Your task to perform on an android device: change alarm snooze length Image 0: 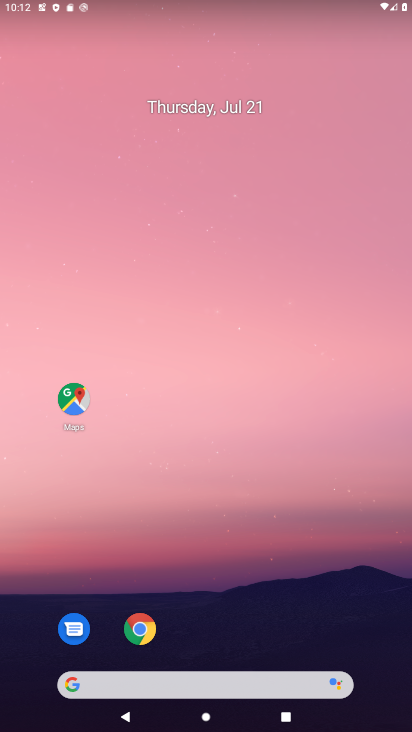
Step 0: drag from (259, 563) to (383, 20)
Your task to perform on an android device: change alarm snooze length Image 1: 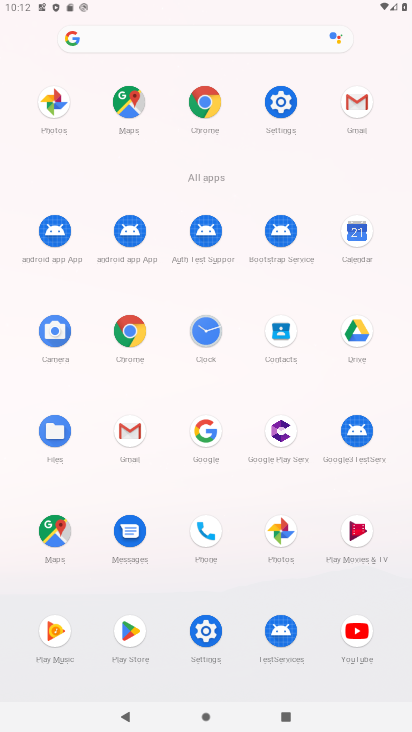
Step 1: click (206, 319)
Your task to perform on an android device: change alarm snooze length Image 2: 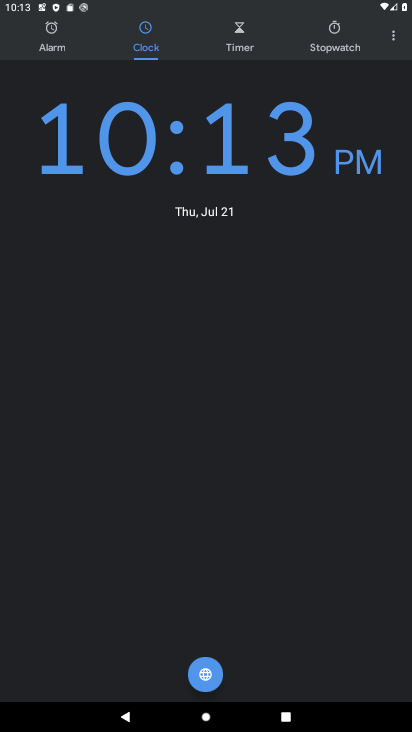
Step 2: click (395, 33)
Your task to perform on an android device: change alarm snooze length Image 3: 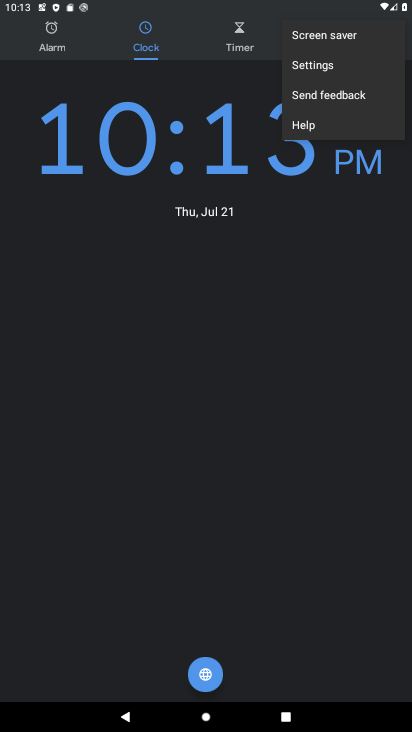
Step 3: click (303, 71)
Your task to perform on an android device: change alarm snooze length Image 4: 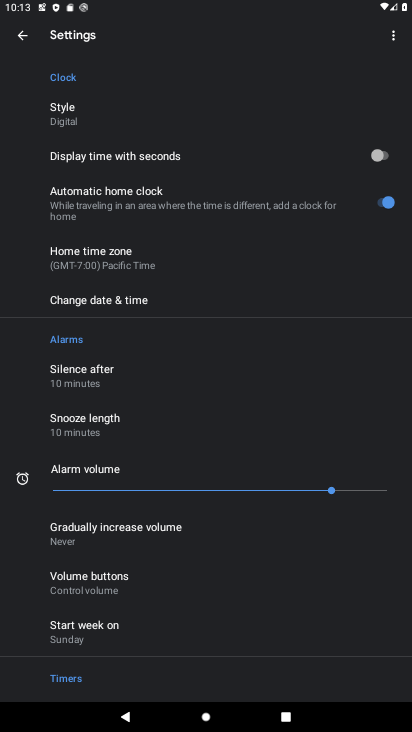
Step 4: click (73, 420)
Your task to perform on an android device: change alarm snooze length Image 5: 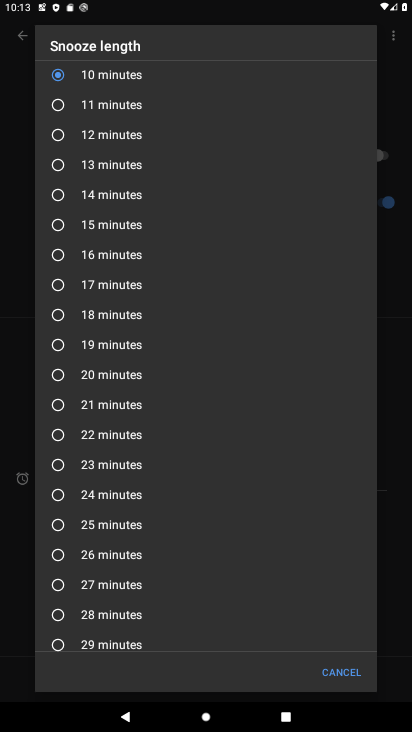
Step 5: click (83, 98)
Your task to perform on an android device: change alarm snooze length Image 6: 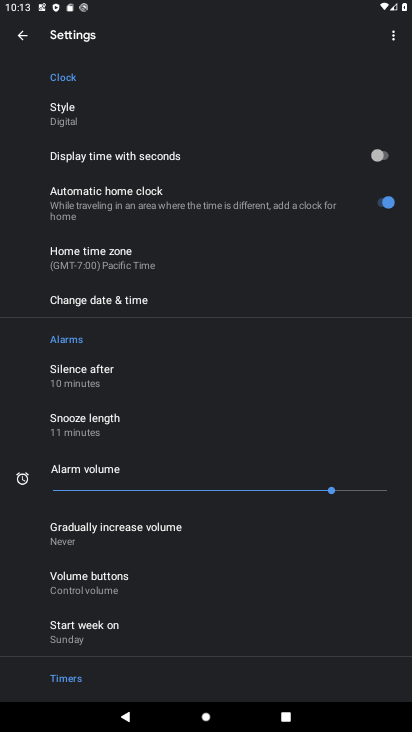
Step 6: task complete